Your task to perform on an android device: See recent photos Image 0: 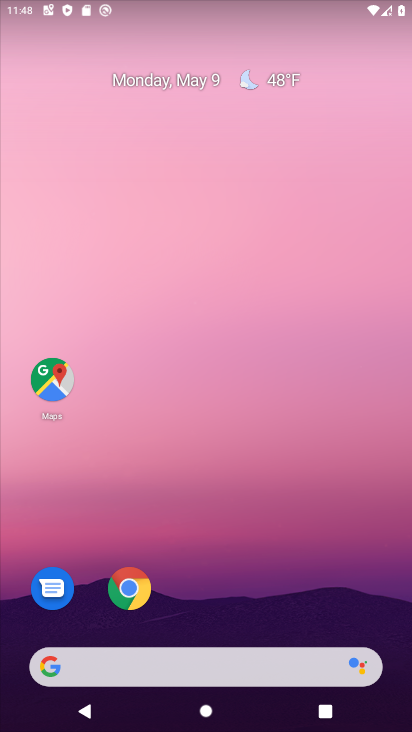
Step 0: drag from (249, 585) to (194, 321)
Your task to perform on an android device: See recent photos Image 1: 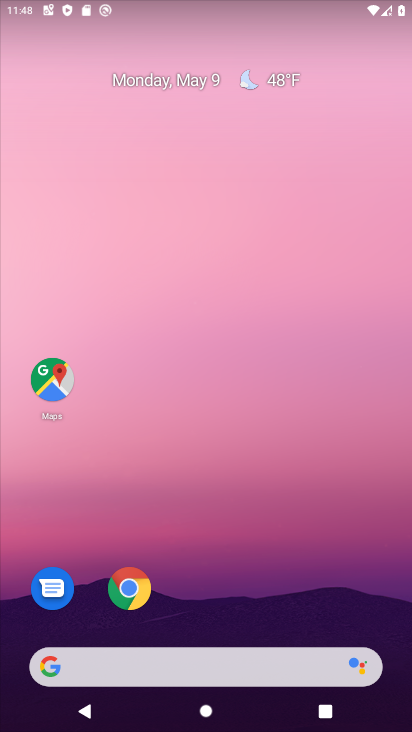
Step 1: drag from (230, 590) to (262, 286)
Your task to perform on an android device: See recent photos Image 2: 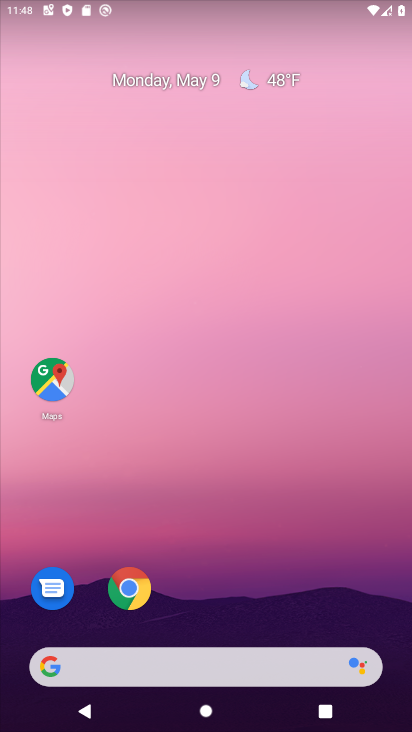
Step 2: drag from (277, 607) to (354, 495)
Your task to perform on an android device: See recent photos Image 3: 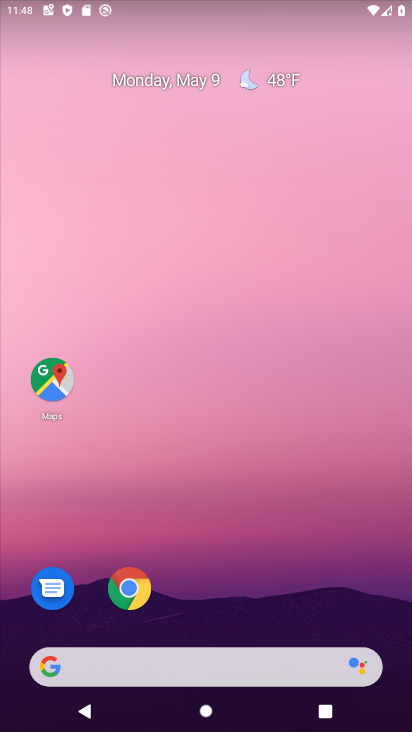
Step 3: drag from (306, 547) to (302, 40)
Your task to perform on an android device: See recent photos Image 4: 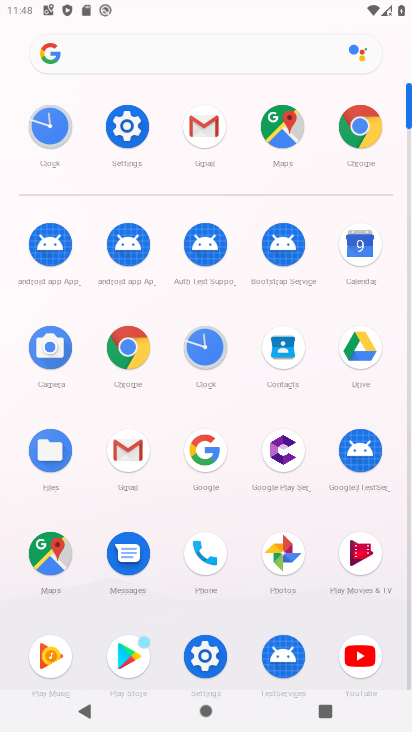
Step 4: click (287, 561)
Your task to perform on an android device: See recent photos Image 5: 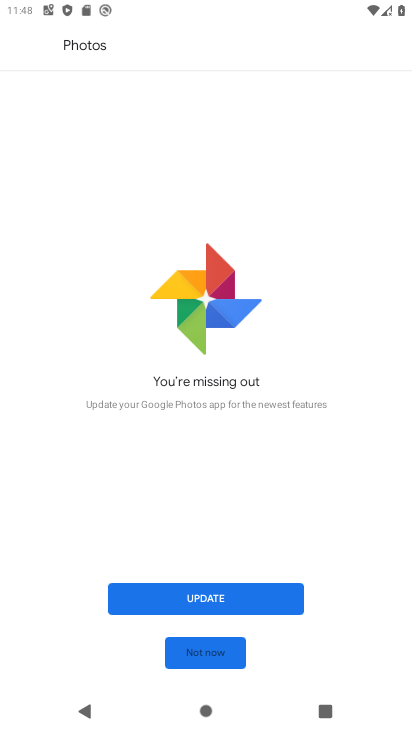
Step 5: click (241, 584)
Your task to perform on an android device: See recent photos Image 6: 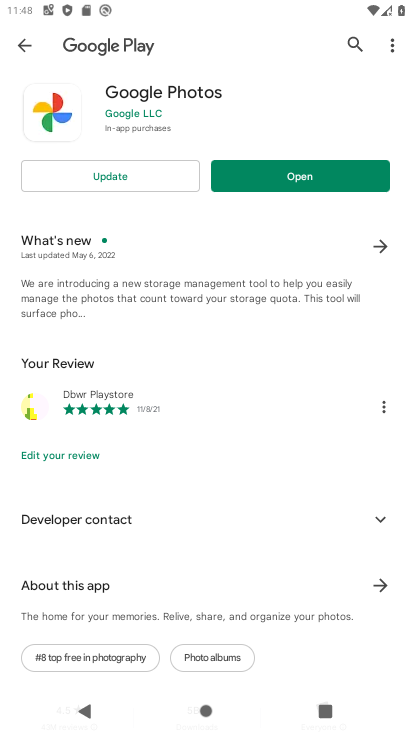
Step 6: press back button
Your task to perform on an android device: See recent photos Image 7: 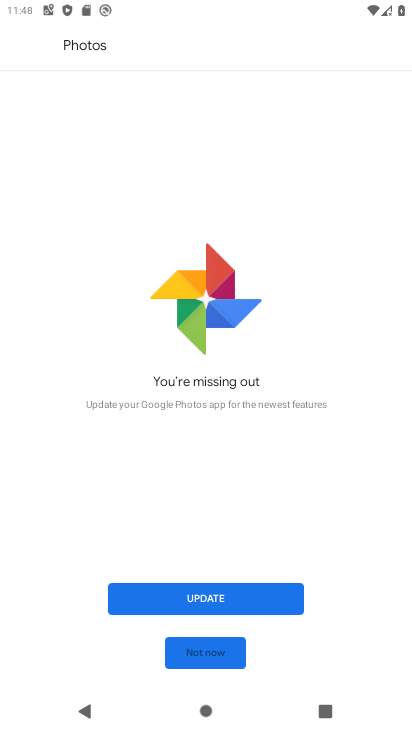
Step 7: click (212, 647)
Your task to perform on an android device: See recent photos Image 8: 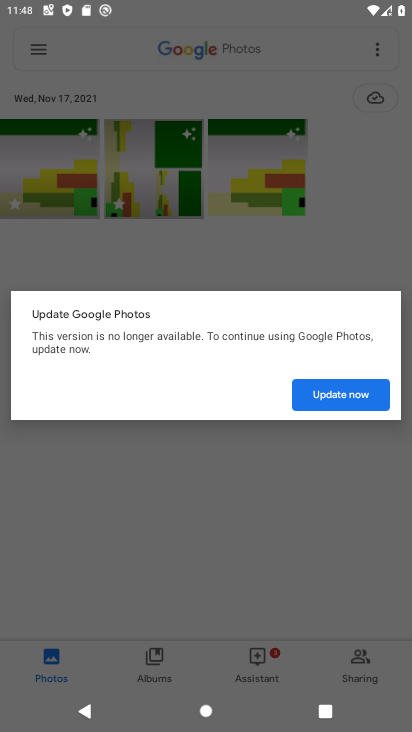
Step 8: click (364, 388)
Your task to perform on an android device: See recent photos Image 9: 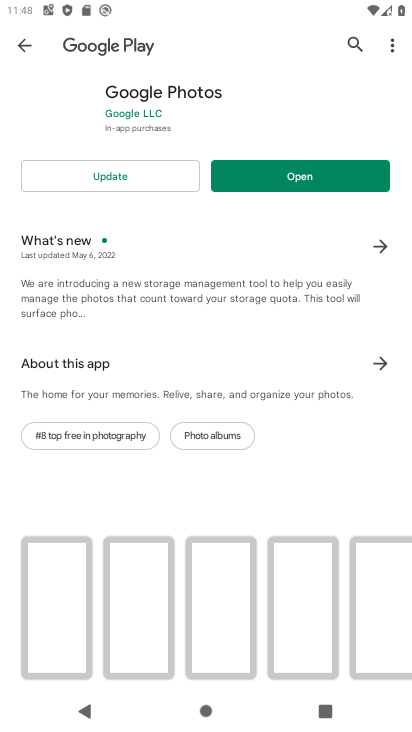
Step 9: click (364, 388)
Your task to perform on an android device: See recent photos Image 10: 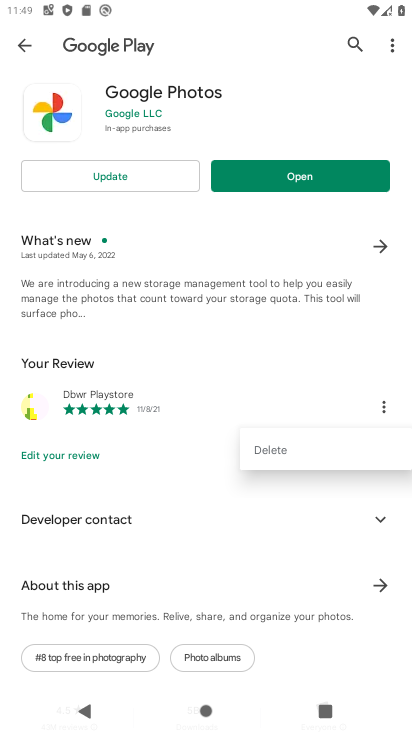
Step 10: task complete